Your task to perform on an android device: install app "Facebook Messenger" Image 0: 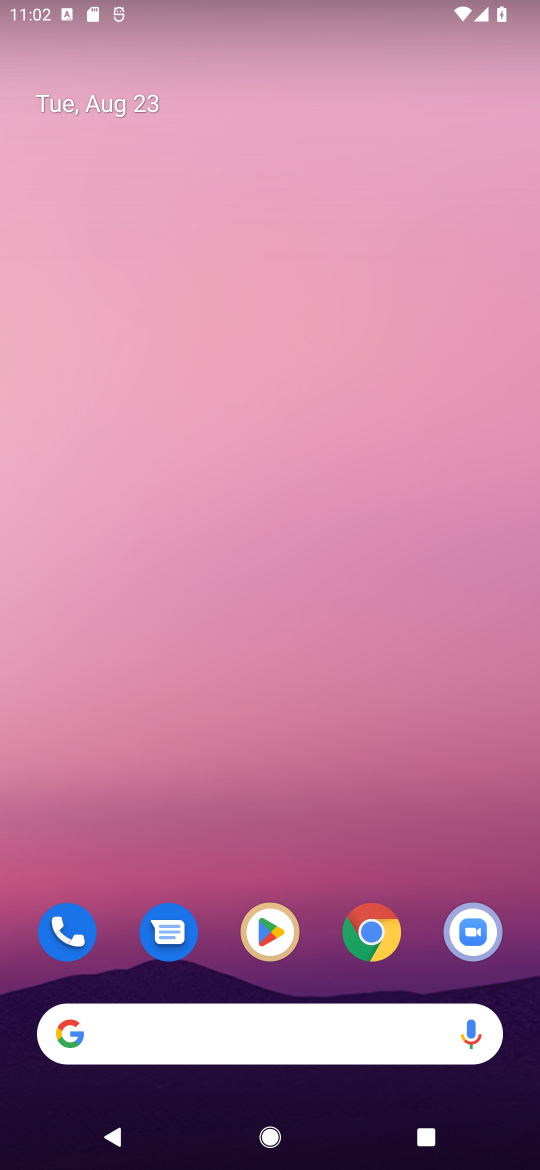
Step 0: click (256, 928)
Your task to perform on an android device: install app "Facebook Messenger" Image 1: 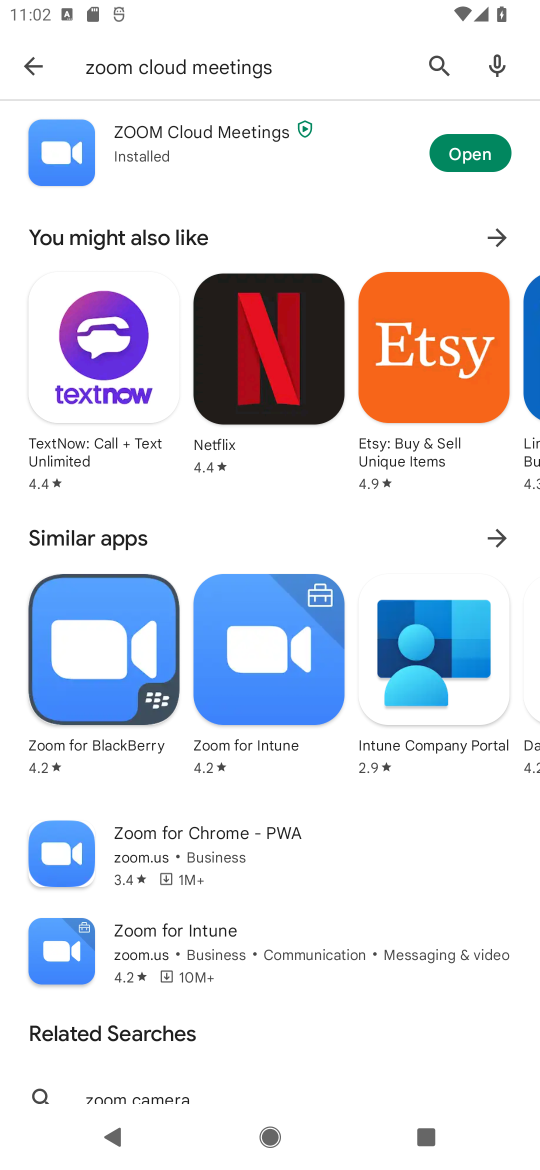
Step 1: click (434, 58)
Your task to perform on an android device: install app "Facebook Messenger" Image 2: 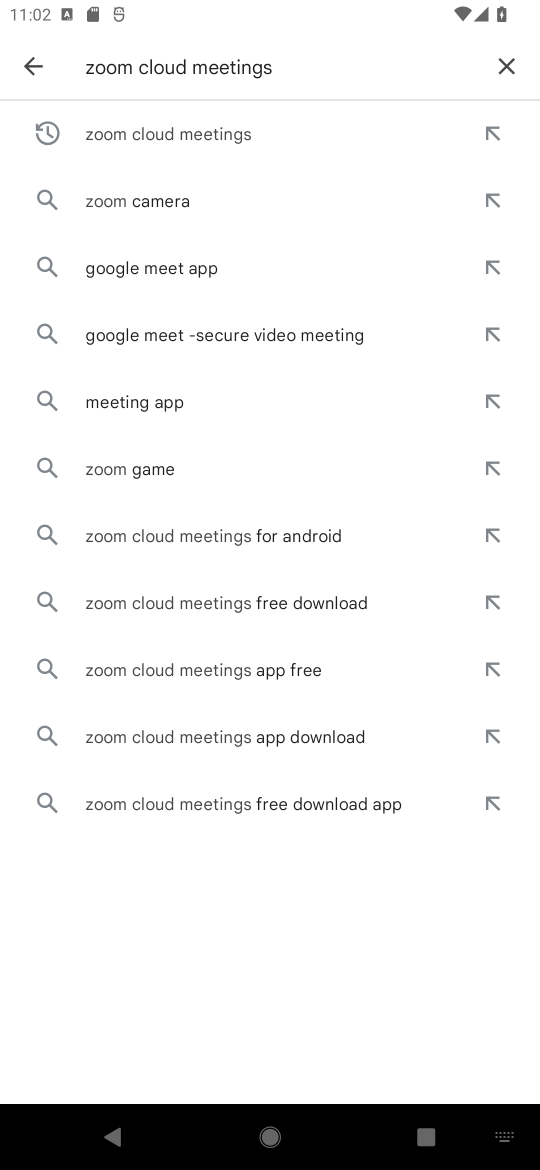
Step 2: click (513, 69)
Your task to perform on an android device: install app "Facebook Messenger" Image 3: 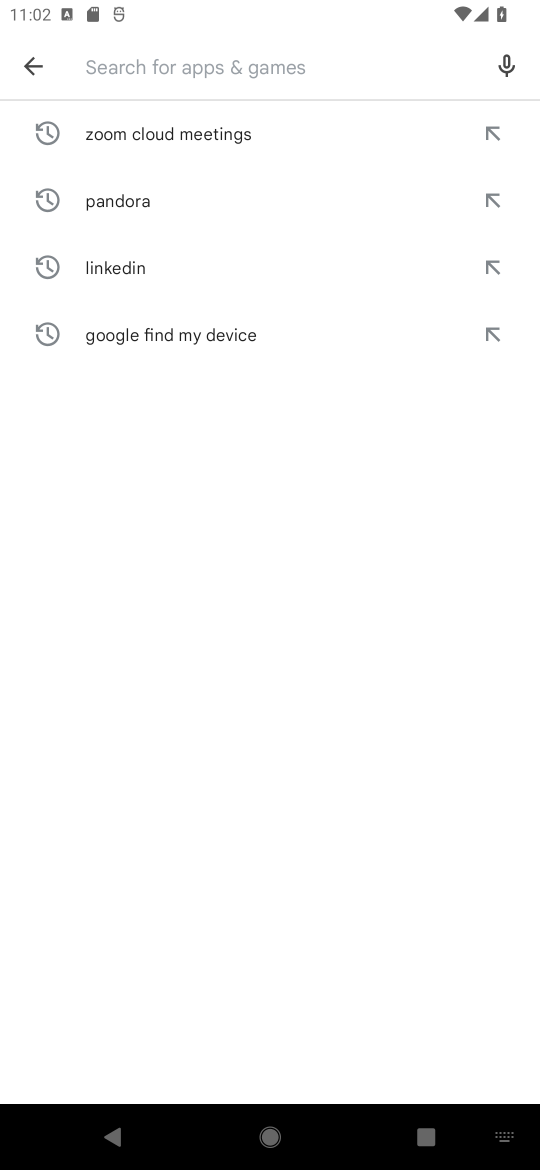
Step 3: click (88, 68)
Your task to perform on an android device: install app "Facebook Messenger" Image 4: 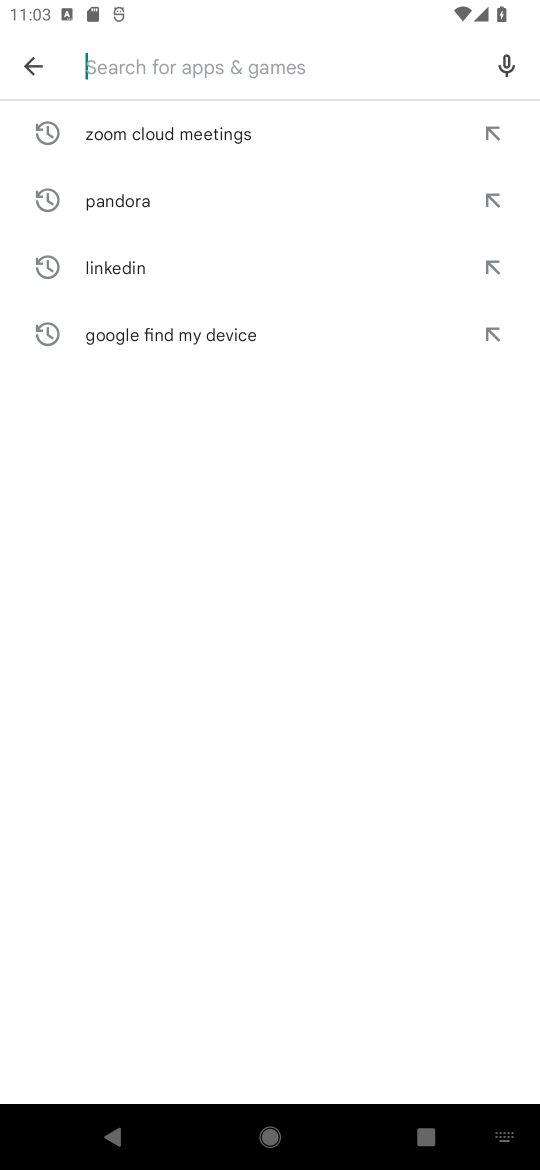
Step 4: type "Facebook Messenger"
Your task to perform on an android device: install app "Facebook Messenger" Image 5: 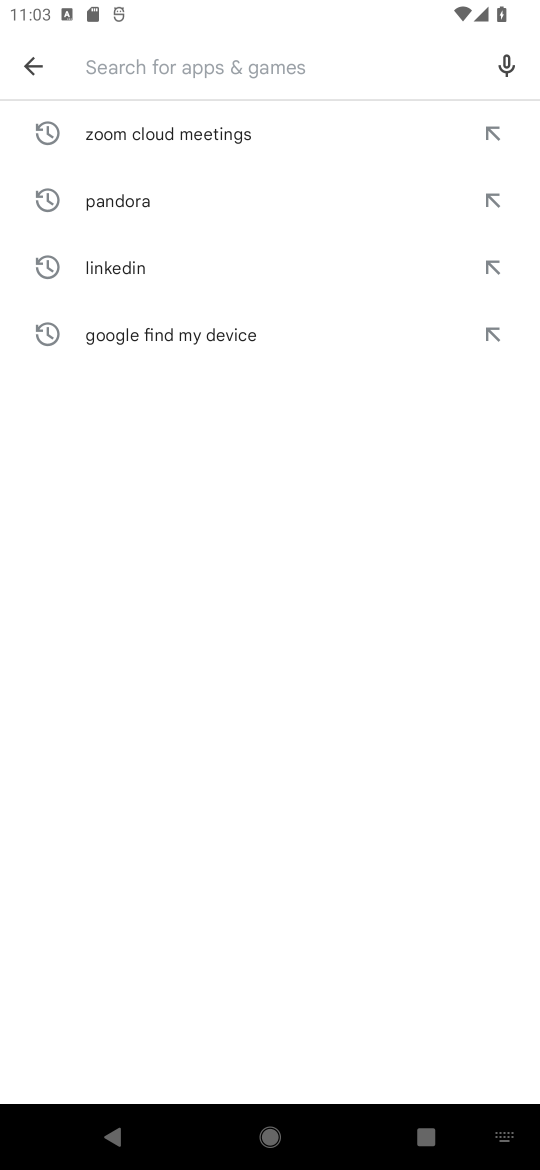
Step 5: click (274, 692)
Your task to perform on an android device: install app "Facebook Messenger" Image 6: 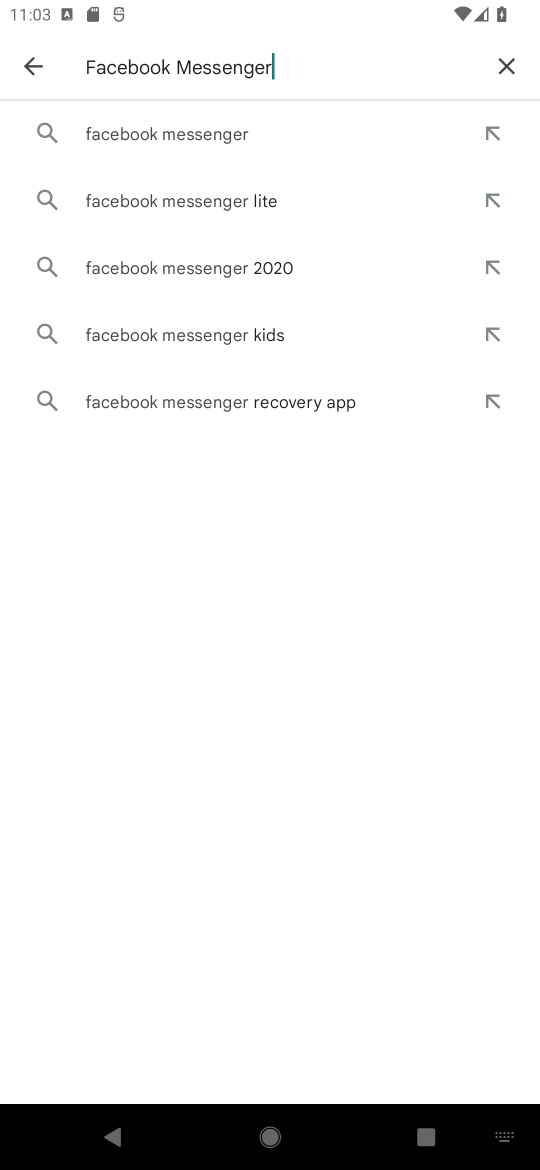
Step 6: click (199, 126)
Your task to perform on an android device: install app "Facebook Messenger" Image 7: 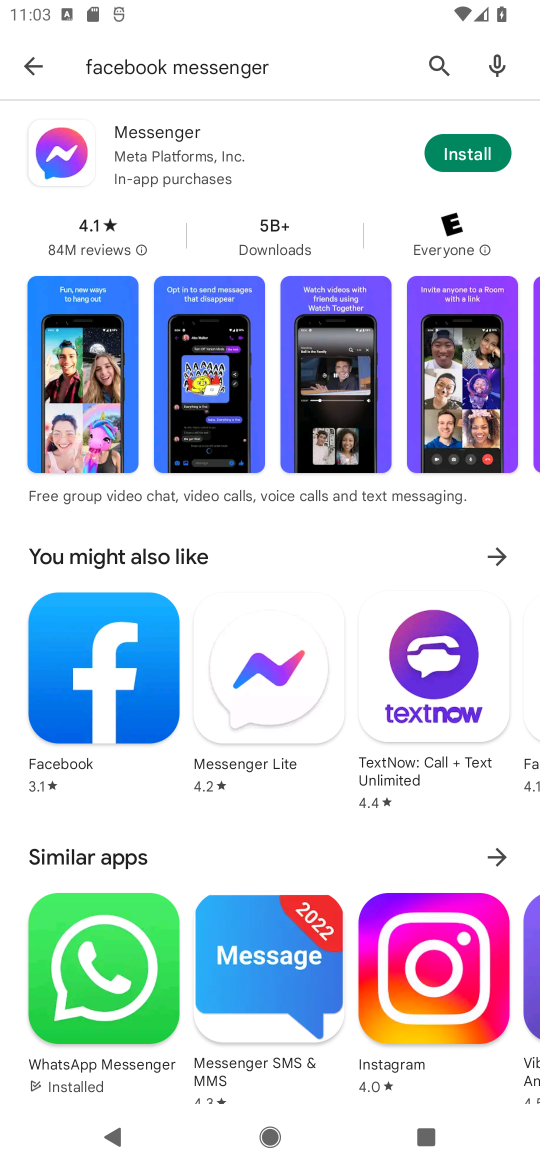
Step 7: click (453, 154)
Your task to perform on an android device: install app "Facebook Messenger" Image 8: 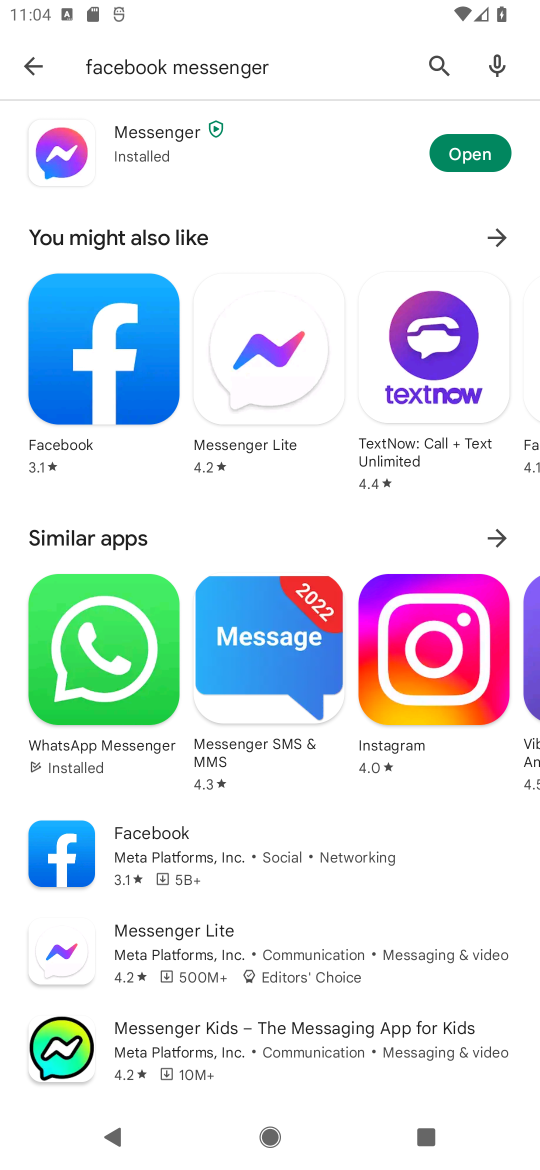
Step 8: task complete